Your task to perform on an android device: Search for sushi restaurants on Maps Image 0: 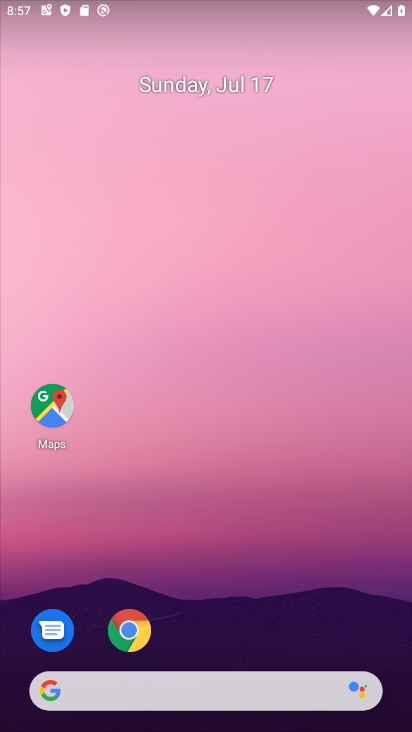
Step 0: drag from (264, 526) to (323, 8)
Your task to perform on an android device: Search for sushi restaurants on Maps Image 1: 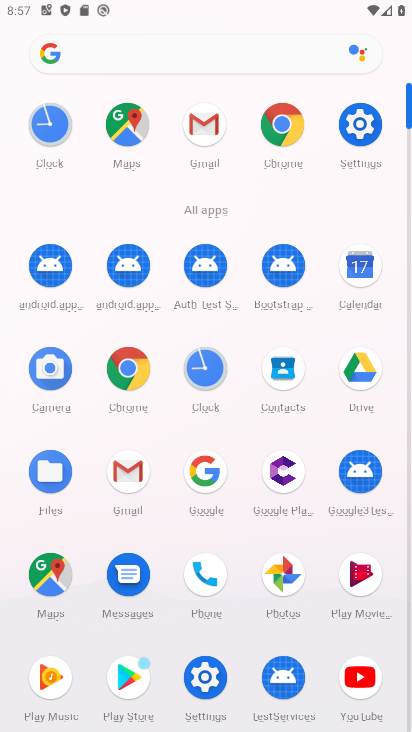
Step 1: click (44, 580)
Your task to perform on an android device: Search for sushi restaurants on Maps Image 2: 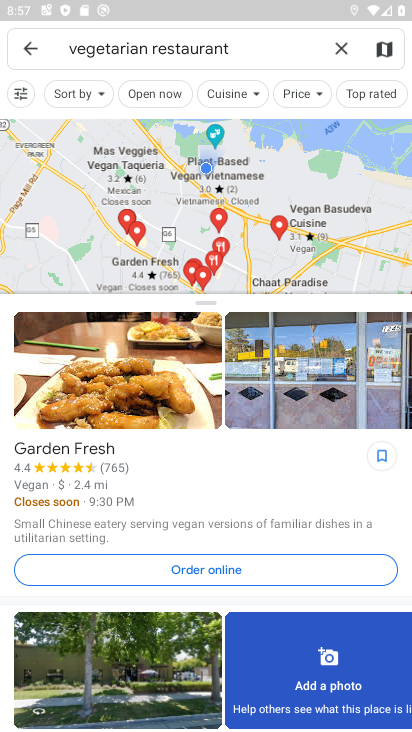
Step 2: press back button
Your task to perform on an android device: Search for sushi restaurants on Maps Image 3: 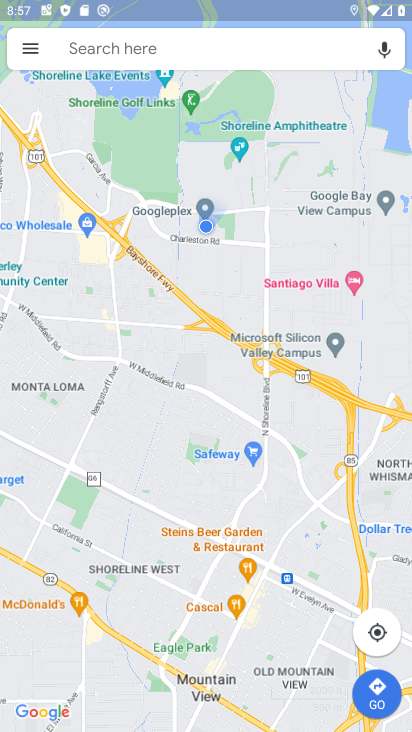
Step 3: click (143, 33)
Your task to perform on an android device: Search for sushi restaurants on Maps Image 4: 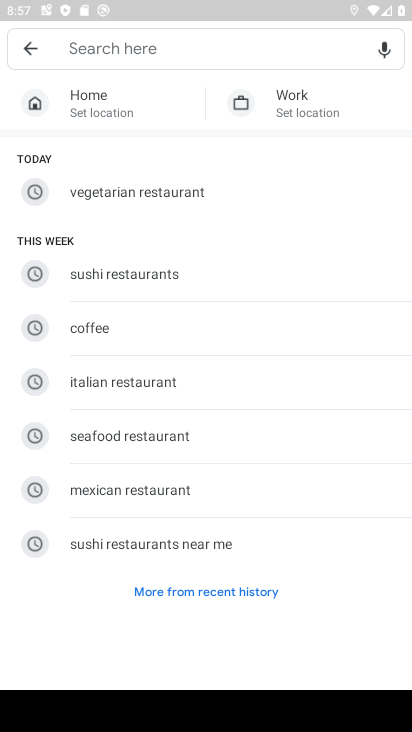
Step 4: click (121, 280)
Your task to perform on an android device: Search for sushi restaurants on Maps Image 5: 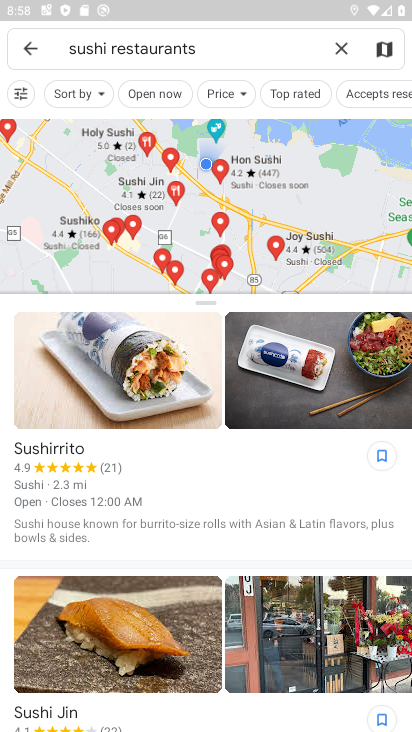
Step 5: task complete